Your task to perform on an android device: Go to Amazon Image 0: 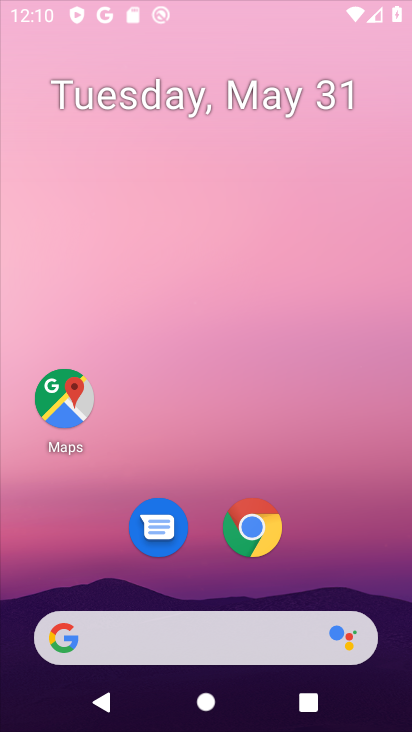
Step 0: drag from (251, 699) to (171, 368)
Your task to perform on an android device: Go to Amazon Image 1: 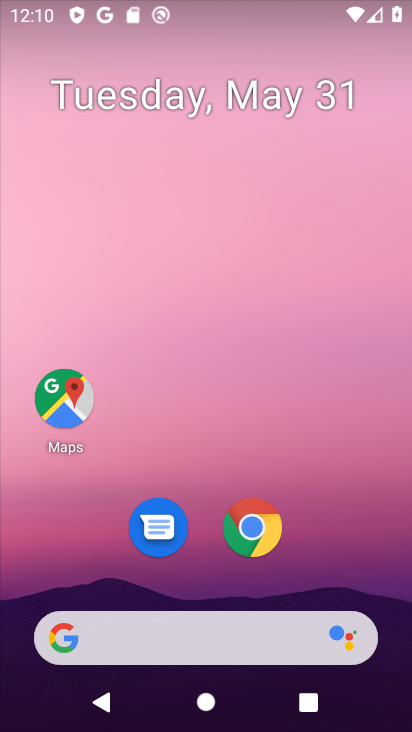
Step 1: drag from (260, 646) to (202, 243)
Your task to perform on an android device: Go to Amazon Image 2: 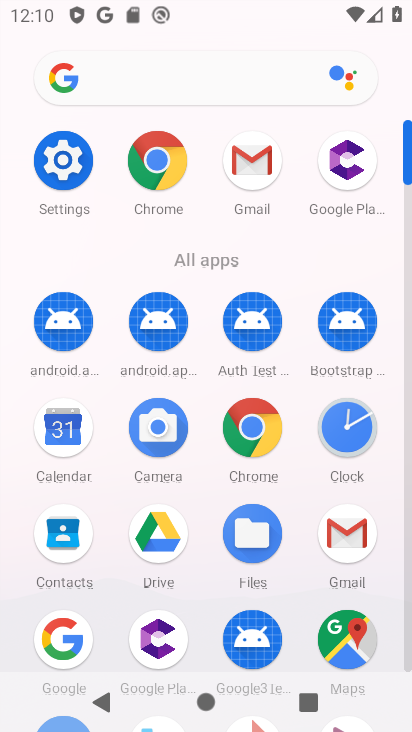
Step 2: drag from (250, 661) to (190, 254)
Your task to perform on an android device: Go to Amazon Image 3: 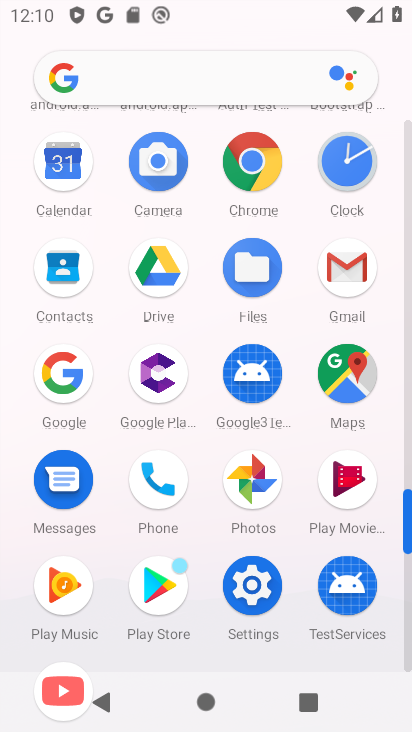
Step 3: click (252, 166)
Your task to perform on an android device: Go to Amazon Image 4: 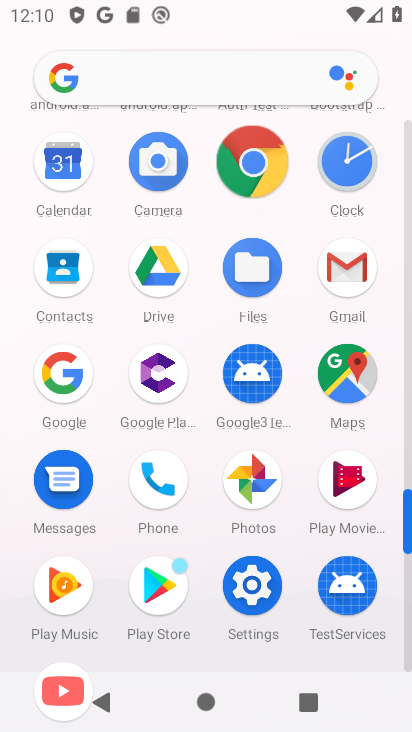
Step 4: click (251, 170)
Your task to perform on an android device: Go to Amazon Image 5: 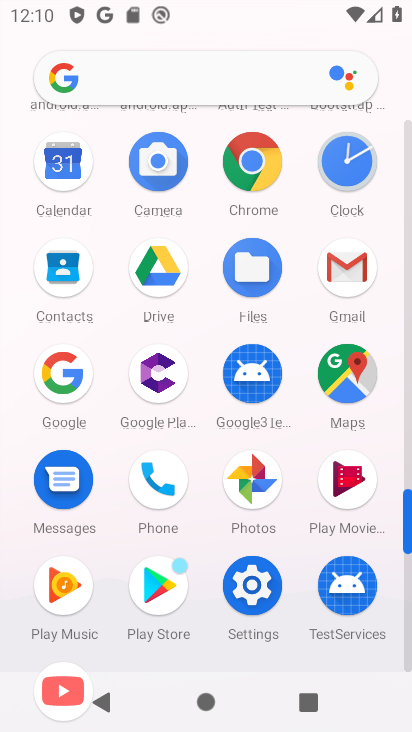
Step 5: click (252, 170)
Your task to perform on an android device: Go to Amazon Image 6: 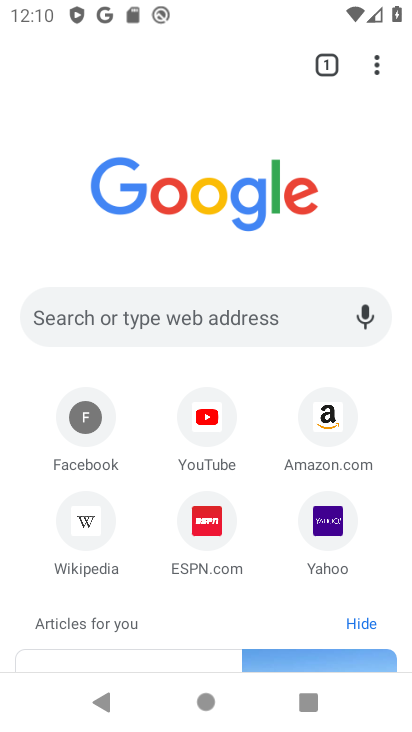
Step 6: click (324, 413)
Your task to perform on an android device: Go to Amazon Image 7: 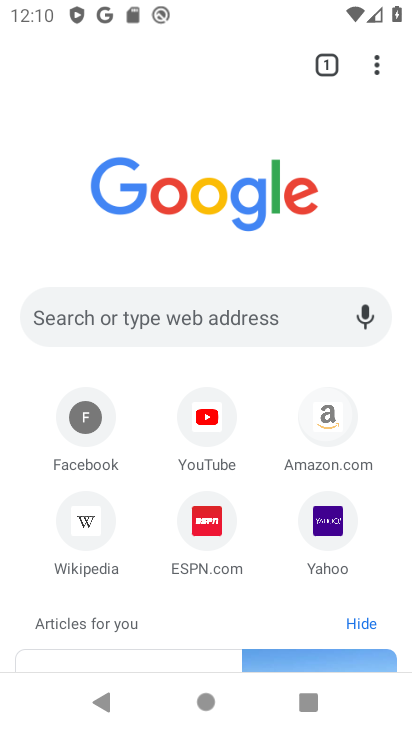
Step 7: click (327, 414)
Your task to perform on an android device: Go to Amazon Image 8: 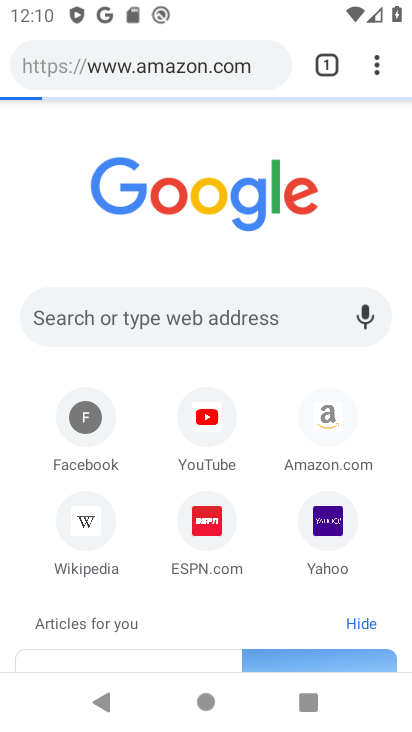
Step 8: click (327, 414)
Your task to perform on an android device: Go to Amazon Image 9: 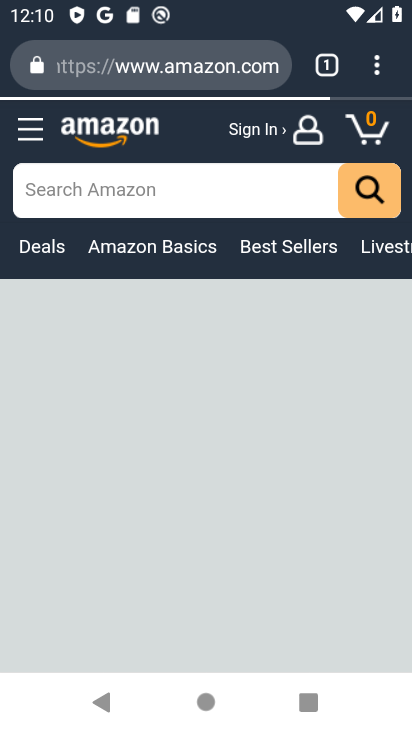
Step 9: task complete